Your task to perform on an android device: Open the web browser Image 0: 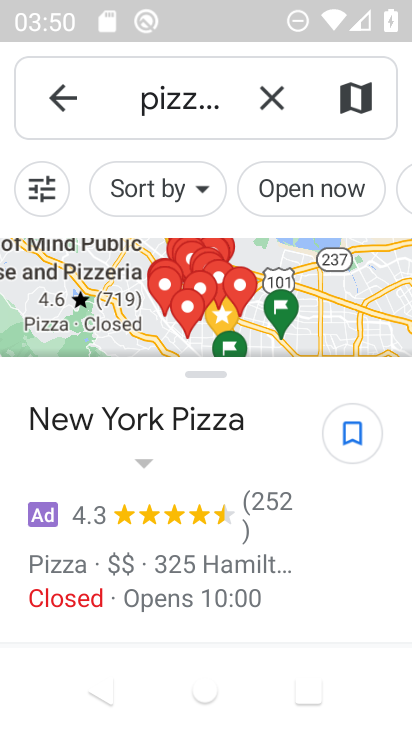
Step 0: press home button
Your task to perform on an android device: Open the web browser Image 1: 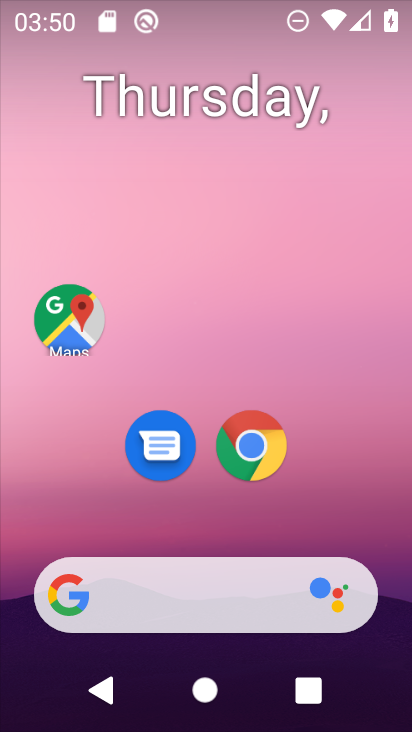
Step 1: click (248, 447)
Your task to perform on an android device: Open the web browser Image 2: 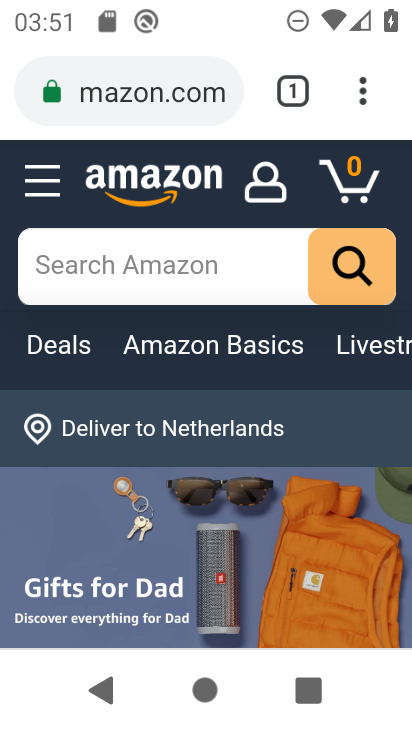
Step 2: task complete